Your task to perform on an android device: move an email to a new category in the gmail app Image 0: 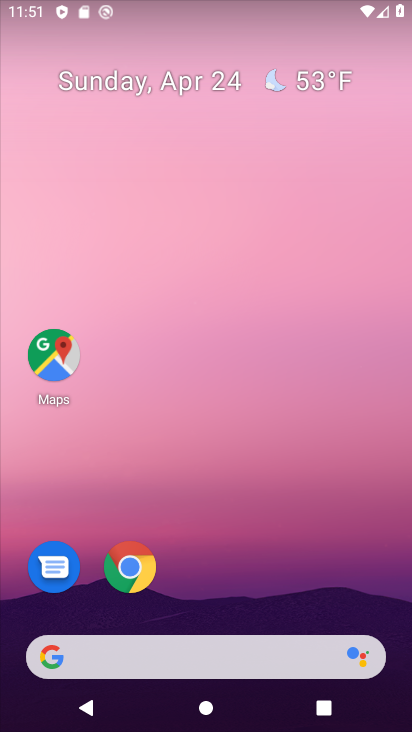
Step 0: drag from (278, 211) to (278, 65)
Your task to perform on an android device: move an email to a new category in the gmail app Image 1: 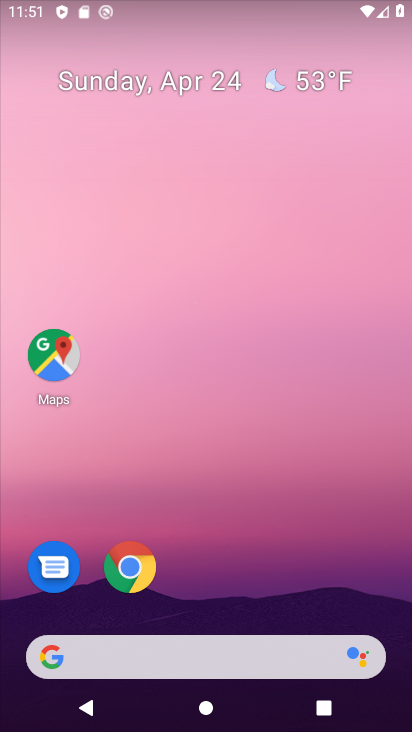
Step 1: drag from (258, 601) to (250, 5)
Your task to perform on an android device: move an email to a new category in the gmail app Image 2: 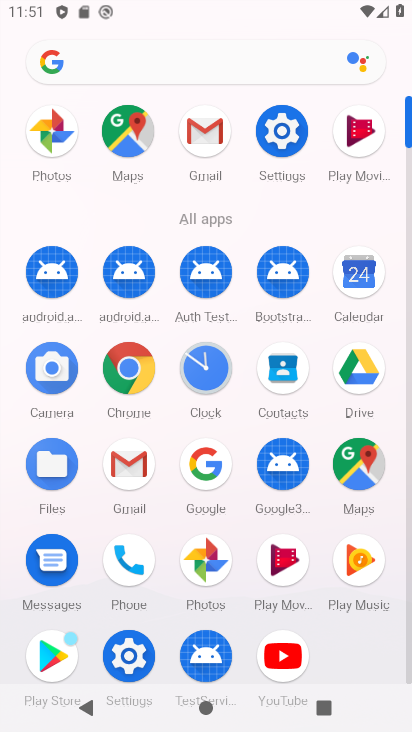
Step 2: click (193, 127)
Your task to perform on an android device: move an email to a new category in the gmail app Image 3: 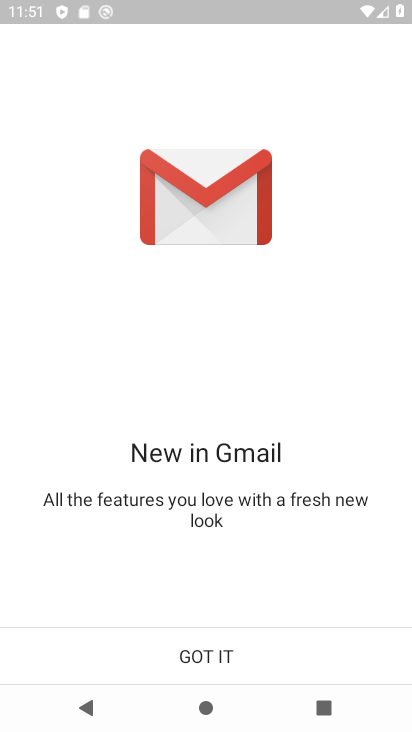
Step 3: click (228, 656)
Your task to perform on an android device: move an email to a new category in the gmail app Image 4: 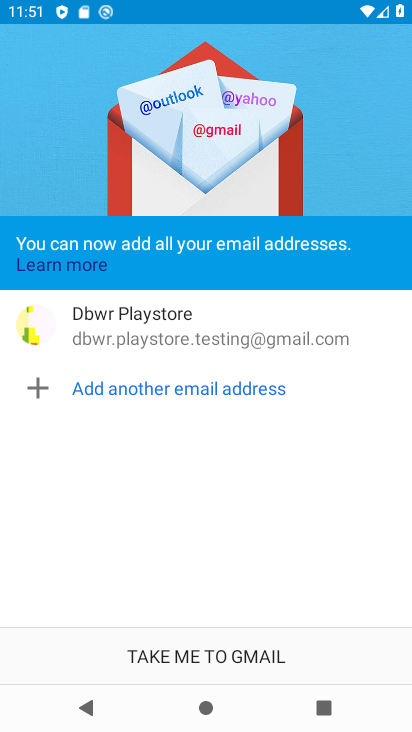
Step 4: click (228, 656)
Your task to perform on an android device: move an email to a new category in the gmail app Image 5: 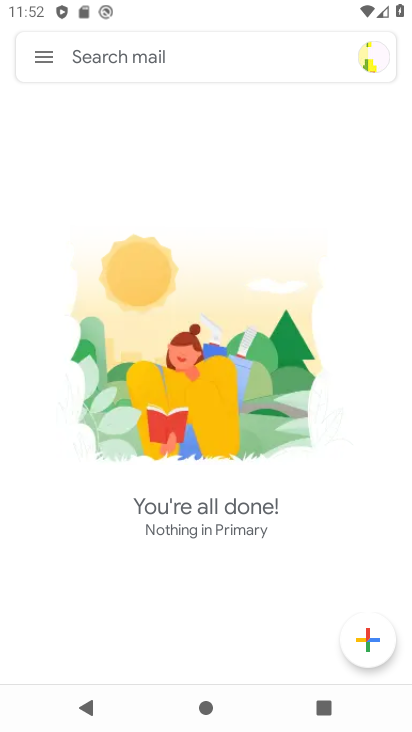
Step 5: click (40, 57)
Your task to perform on an android device: move an email to a new category in the gmail app Image 6: 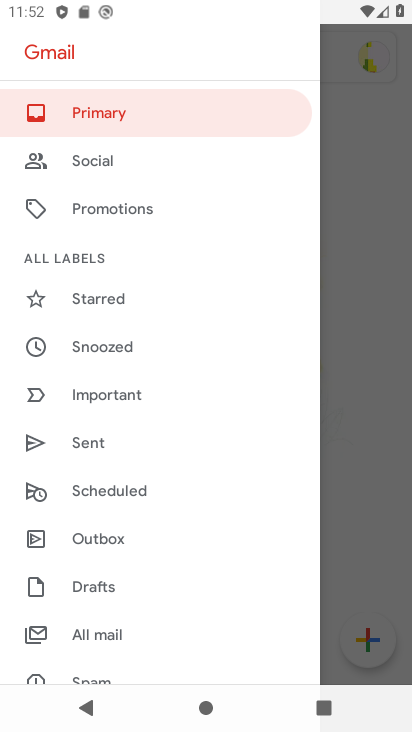
Step 6: click (203, 637)
Your task to perform on an android device: move an email to a new category in the gmail app Image 7: 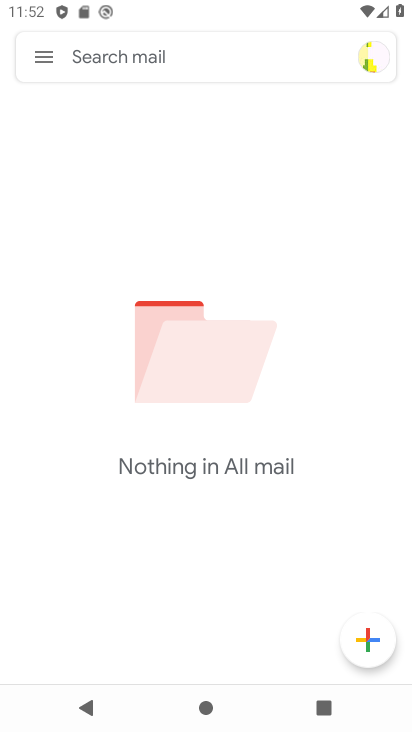
Step 7: task complete